Your task to perform on an android device: Open Google Chrome Image 0: 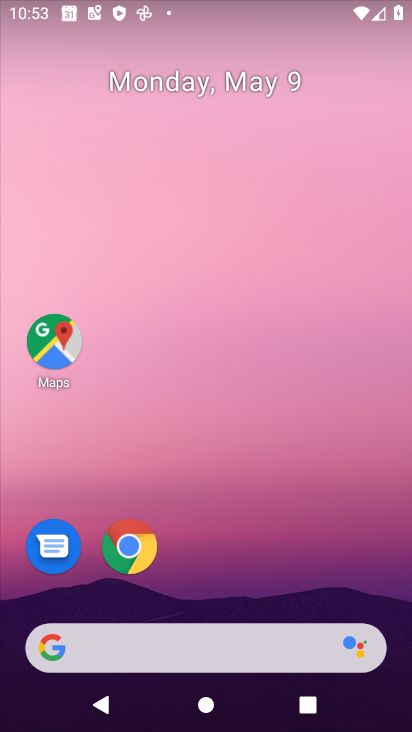
Step 0: click (139, 553)
Your task to perform on an android device: Open Google Chrome Image 1: 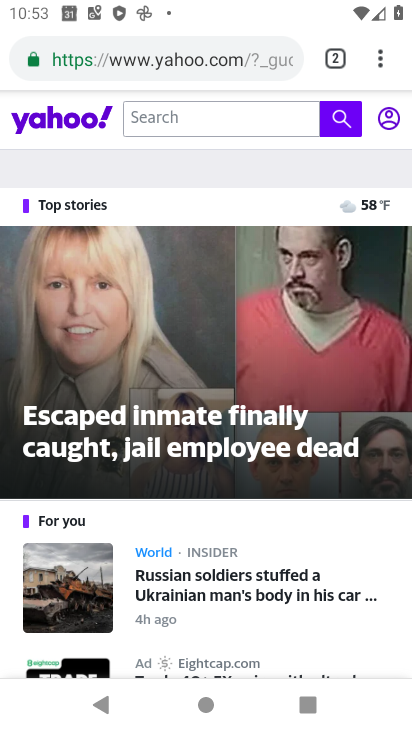
Step 1: task complete